Your task to perform on an android device: turn pop-ups off in chrome Image 0: 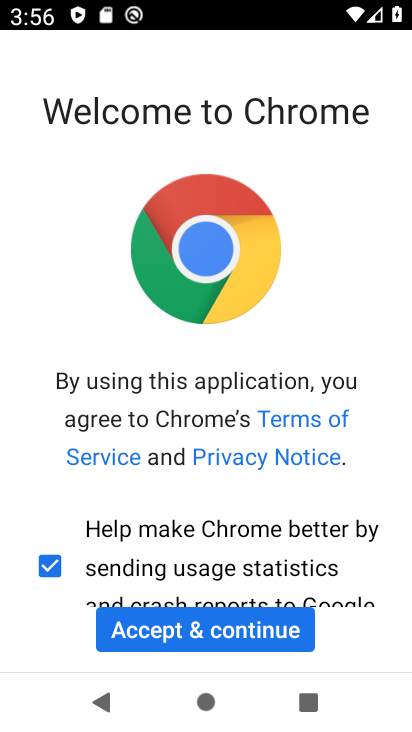
Step 0: click (158, 637)
Your task to perform on an android device: turn pop-ups off in chrome Image 1: 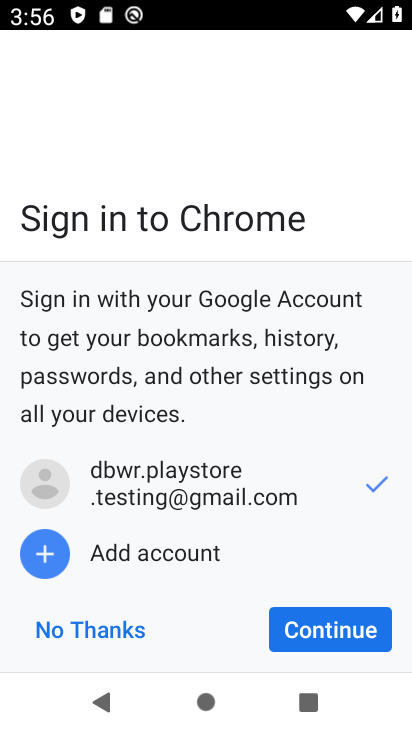
Step 1: click (322, 630)
Your task to perform on an android device: turn pop-ups off in chrome Image 2: 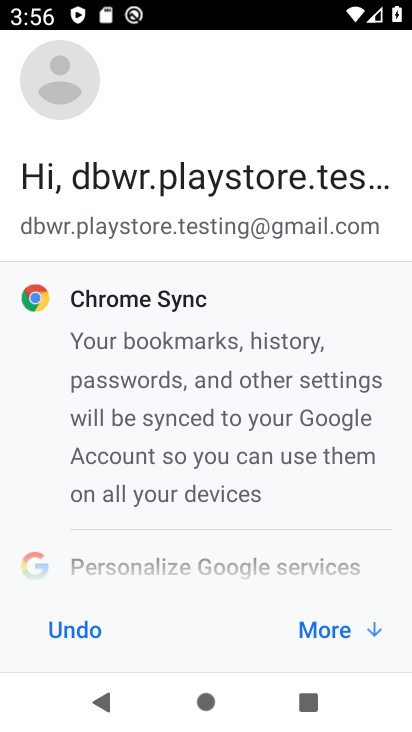
Step 2: click (310, 632)
Your task to perform on an android device: turn pop-ups off in chrome Image 3: 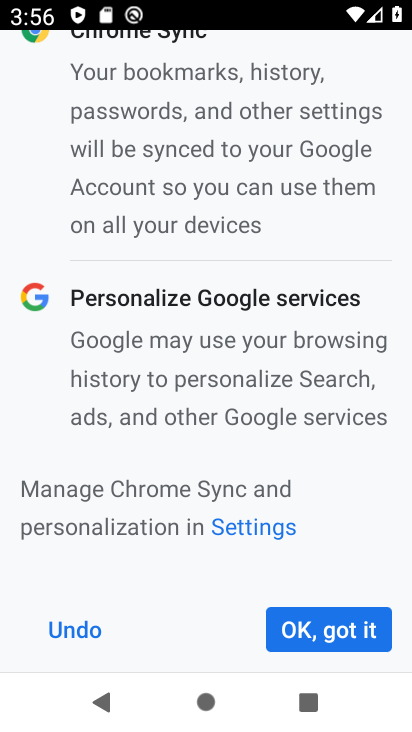
Step 3: click (310, 632)
Your task to perform on an android device: turn pop-ups off in chrome Image 4: 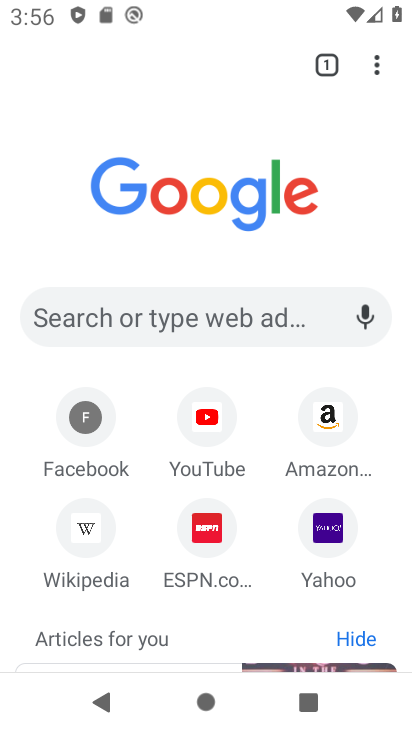
Step 4: click (386, 52)
Your task to perform on an android device: turn pop-ups off in chrome Image 5: 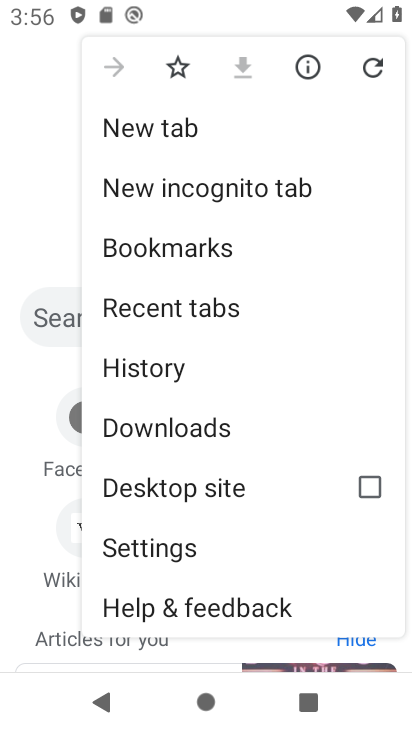
Step 5: click (269, 553)
Your task to perform on an android device: turn pop-ups off in chrome Image 6: 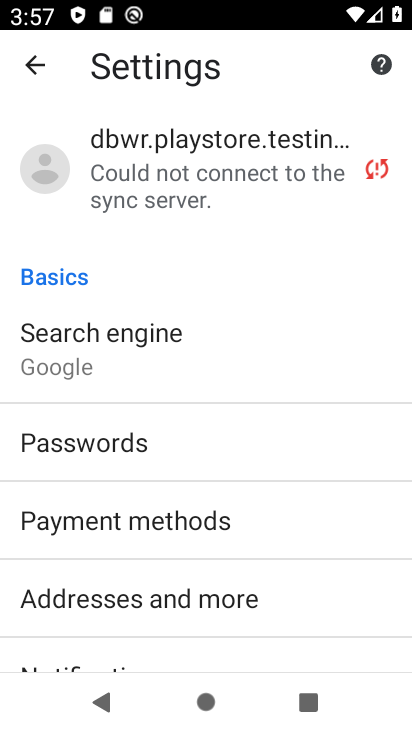
Step 6: drag from (241, 553) to (321, 166)
Your task to perform on an android device: turn pop-ups off in chrome Image 7: 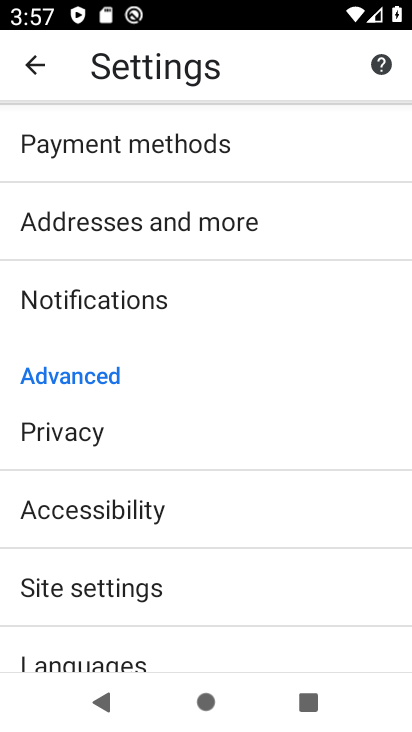
Step 7: click (156, 603)
Your task to perform on an android device: turn pop-ups off in chrome Image 8: 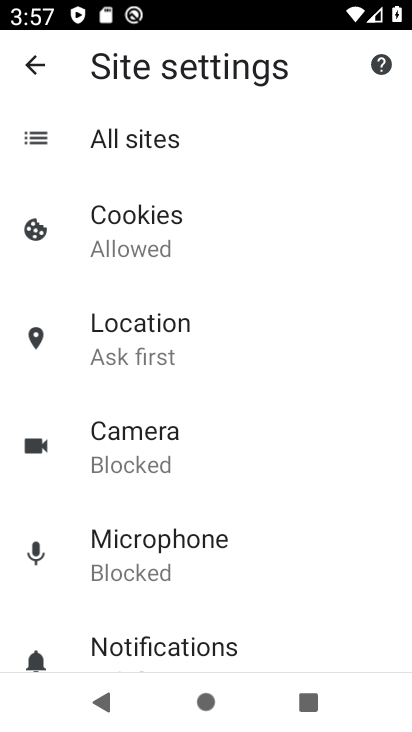
Step 8: drag from (169, 589) to (217, 371)
Your task to perform on an android device: turn pop-ups off in chrome Image 9: 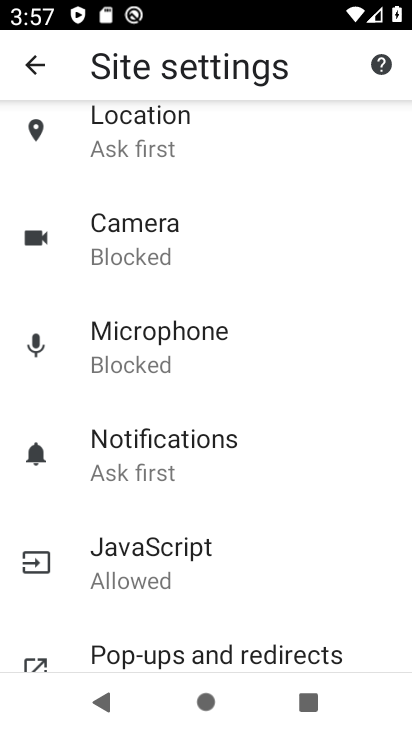
Step 9: click (177, 647)
Your task to perform on an android device: turn pop-ups off in chrome Image 10: 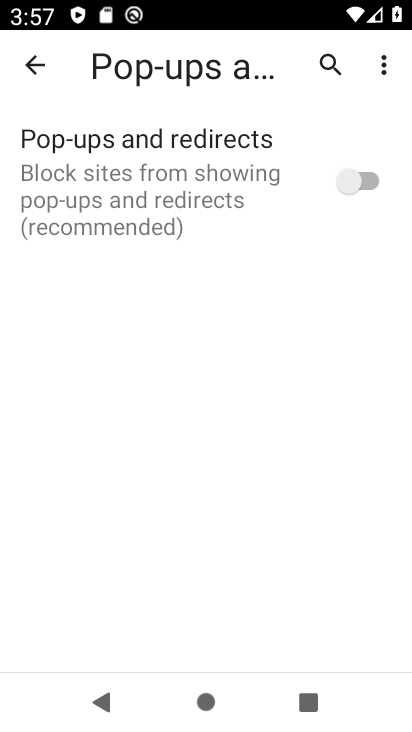
Step 10: task complete